Your task to perform on an android device: turn on notifications settings in the gmail app Image 0: 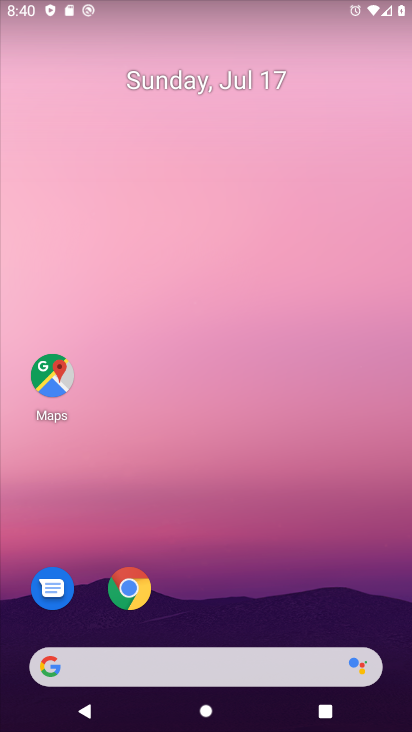
Step 0: drag from (183, 615) to (172, 50)
Your task to perform on an android device: turn on notifications settings in the gmail app Image 1: 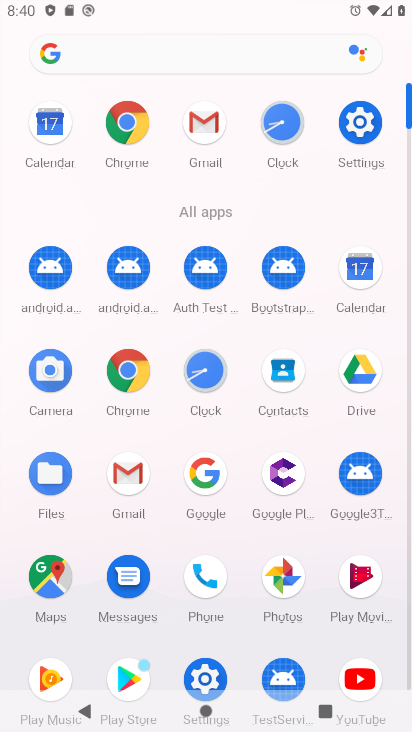
Step 1: click (125, 476)
Your task to perform on an android device: turn on notifications settings in the gmail app Image 2: 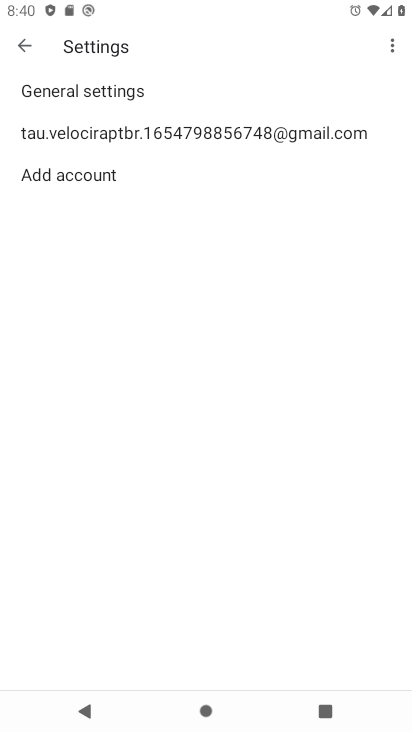
Step 2: click (44, 98)
Your task to perform on an android device: turn on notifications settings in the gmail app Image 3: 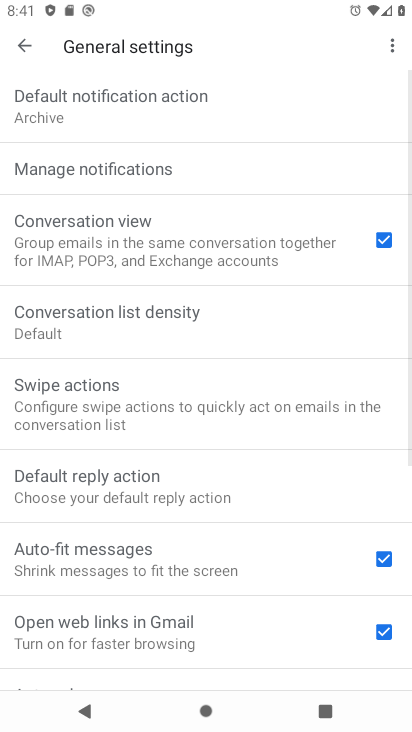
Step 3: click (64, 154)
Your task to perform on an android device: turn on notifications settings in the gmail app Image 4: 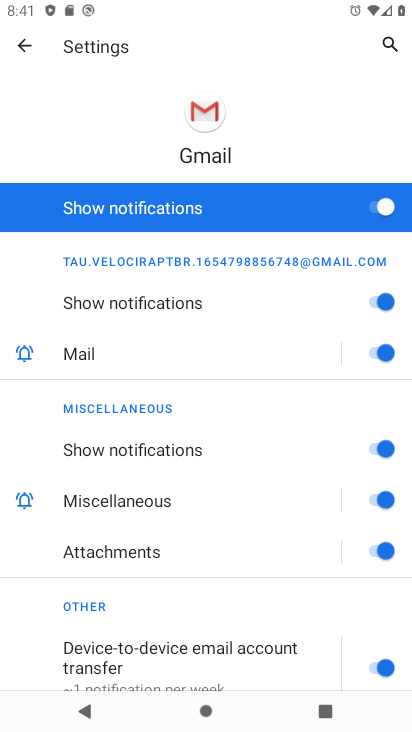
Step 4: task complete